Your task to perform on an android device: Go to Yahoo.com Image 0: 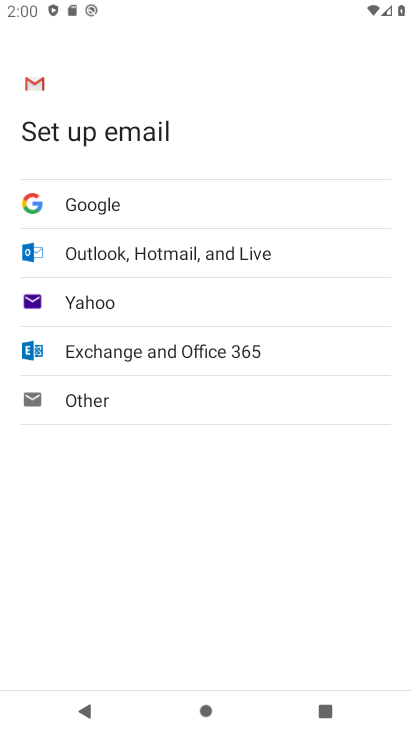
Step 0: press home button
Your task to perform on an android device: Go to Yahoo.com Image 1: 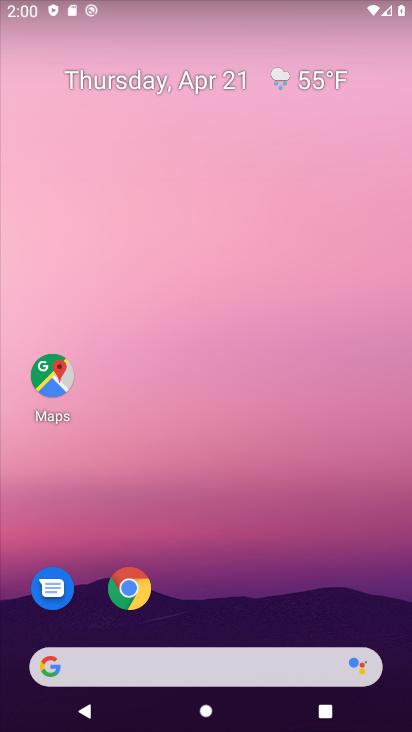
Step 1: click (147, 582)
Your task to perform on an android device: Go to Yahoo.com Image 2: 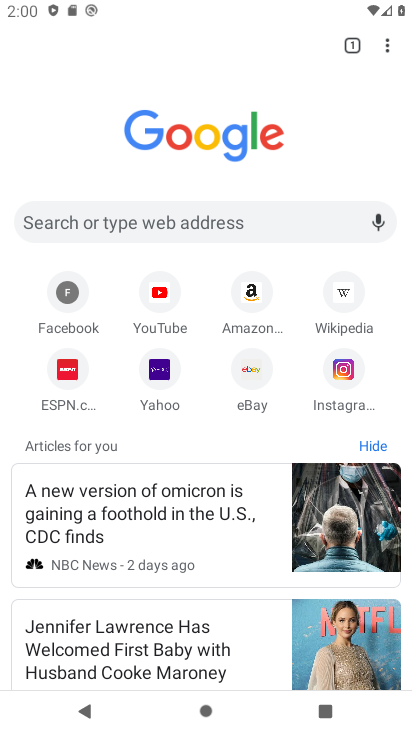
Step 2: click (143, 221)
Your task to perform on an android device: Go to Yahoo.com Image 3: 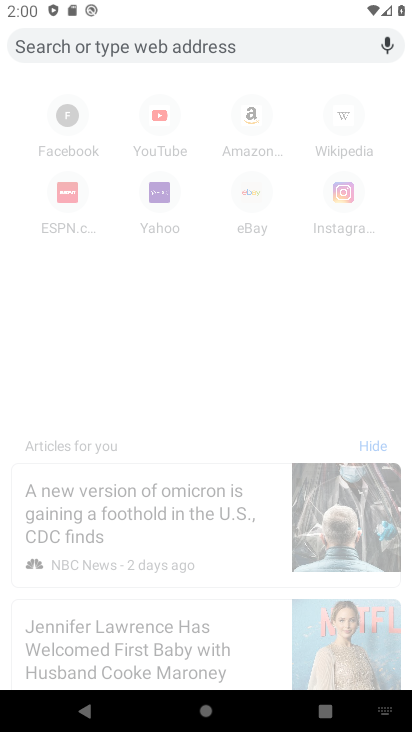
Step 3: type "yahoo.com"
Your task to perform on an android device: Go to Yahoo.com Image 4: 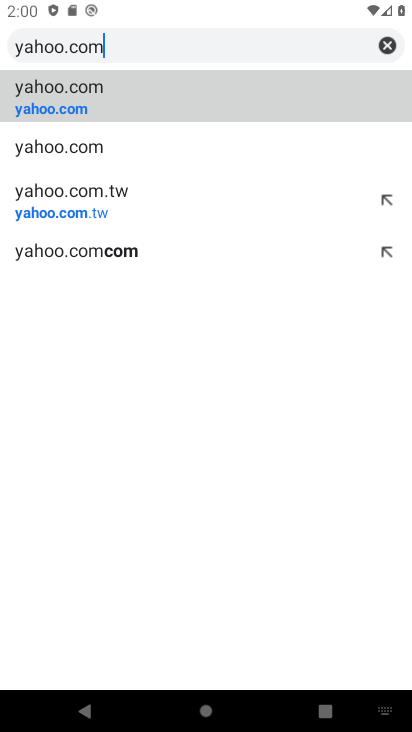
Step 4: click (35, 107)
Your task to perform on an android device: Go to Yahoo.com Image 5: 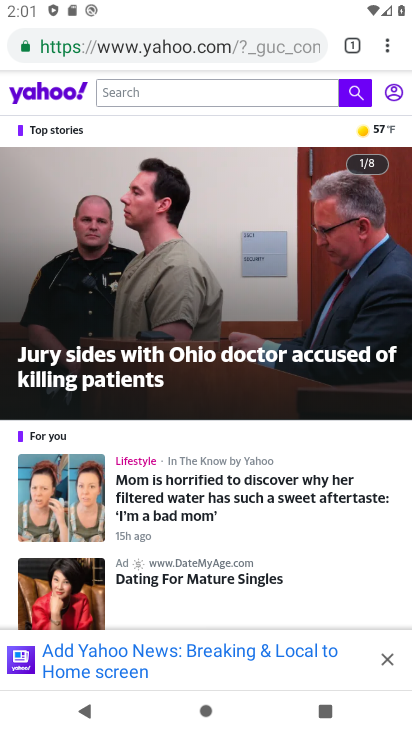
Step 5: task complete